Your task to perform on an android device: choose inbox layout in the gmail app Image 0: 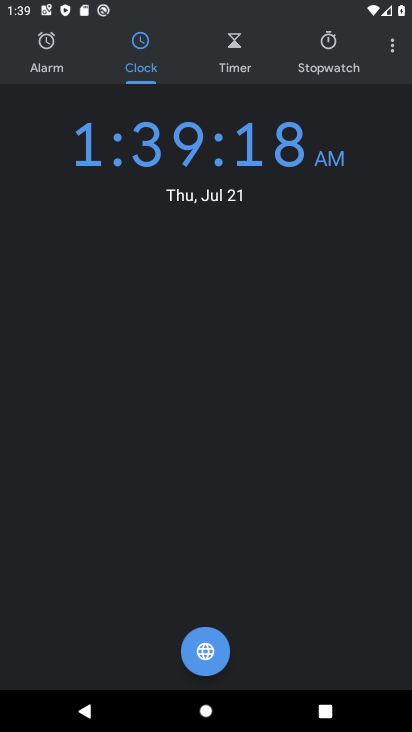
Step 0: press home button
Your task to perform on an android device: choose inbox layout in the gmail app Image 1: 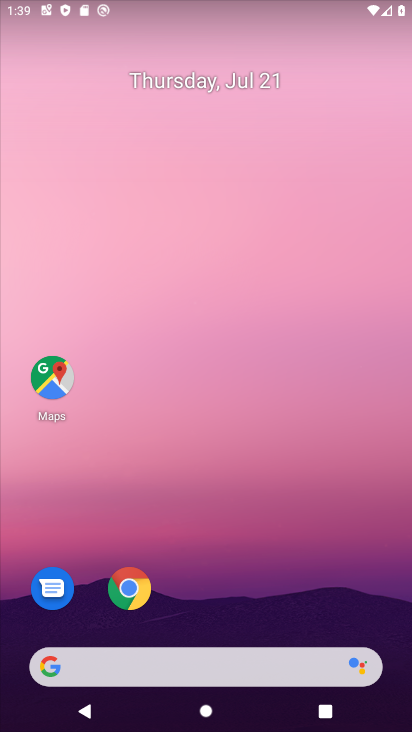
Step 1: drag from (258, 648) to (282, 21)
Your task to perform on an android device: choose inbox layout in the gmail app Image 2: 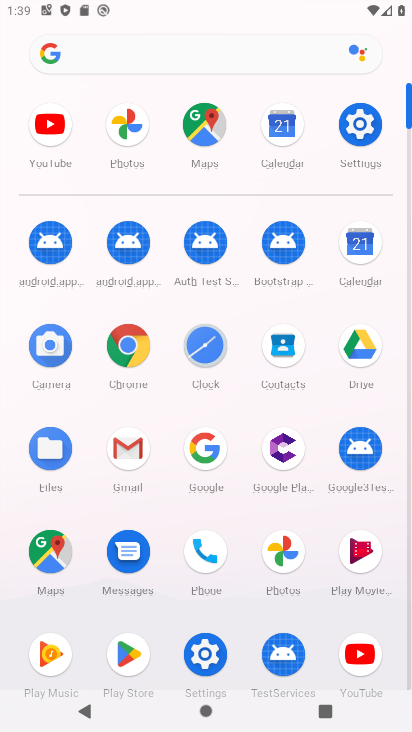
Step 2: click (135, 454)
Your task to perform on an android device: choose inbox layout in the gmail app Image 3: 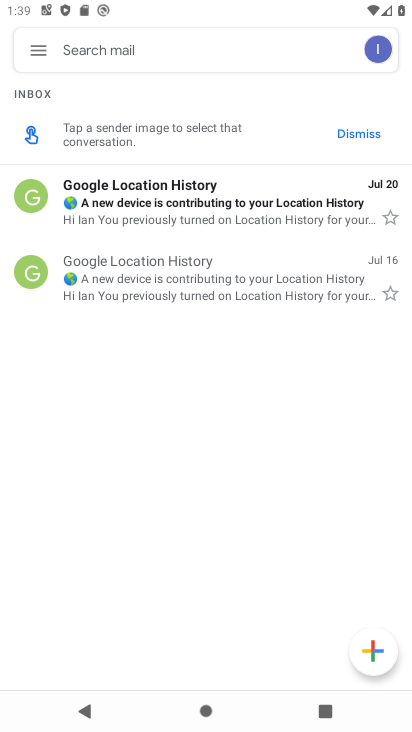
Step 3: task complete